Your task to perform on an android device: Clear all items from cart on target.com. Search for "beats solo 3" on target.com, select the first entry, and add it to the cart. Image 0: 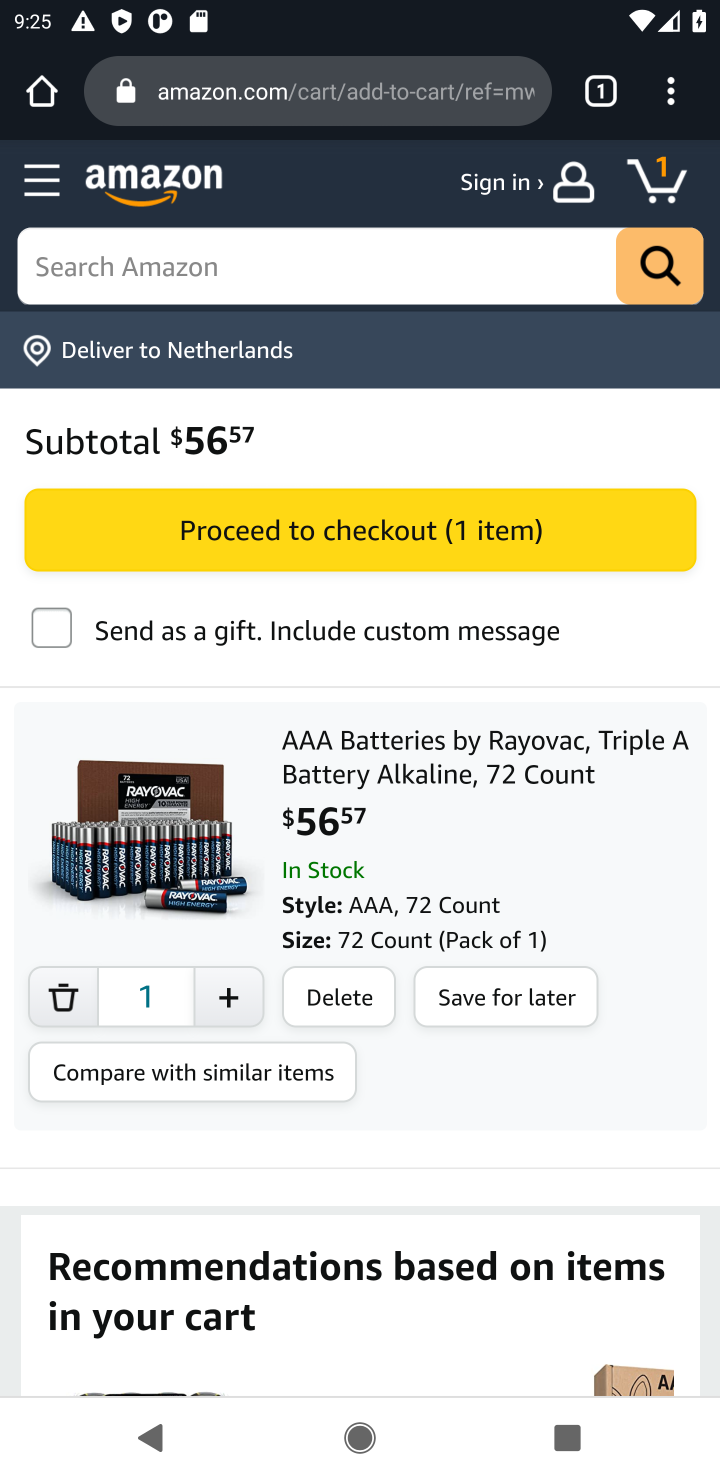
Step 0: click (410, 98)
Your task to perform on an android device: Clear all items from cart on target.com. Search for "beats solo 3" on target.com, select the first entry, and add it to the cart. Image 1: 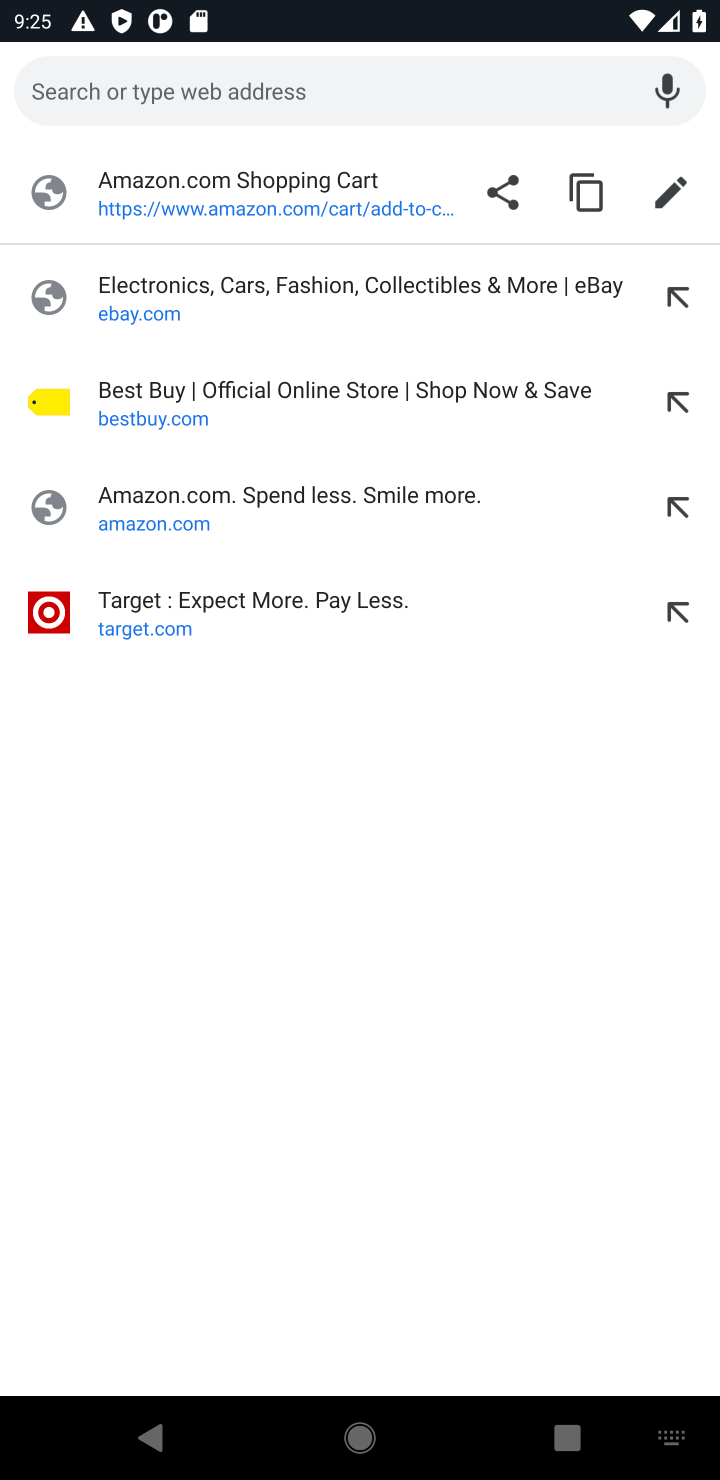
Step 1: type "target.com"
Your task to perform on an android device: Clear all items from cart on target.com. Search for "beats solo 3" on target.com, select the first entry, and add it to the cart. Image 2: 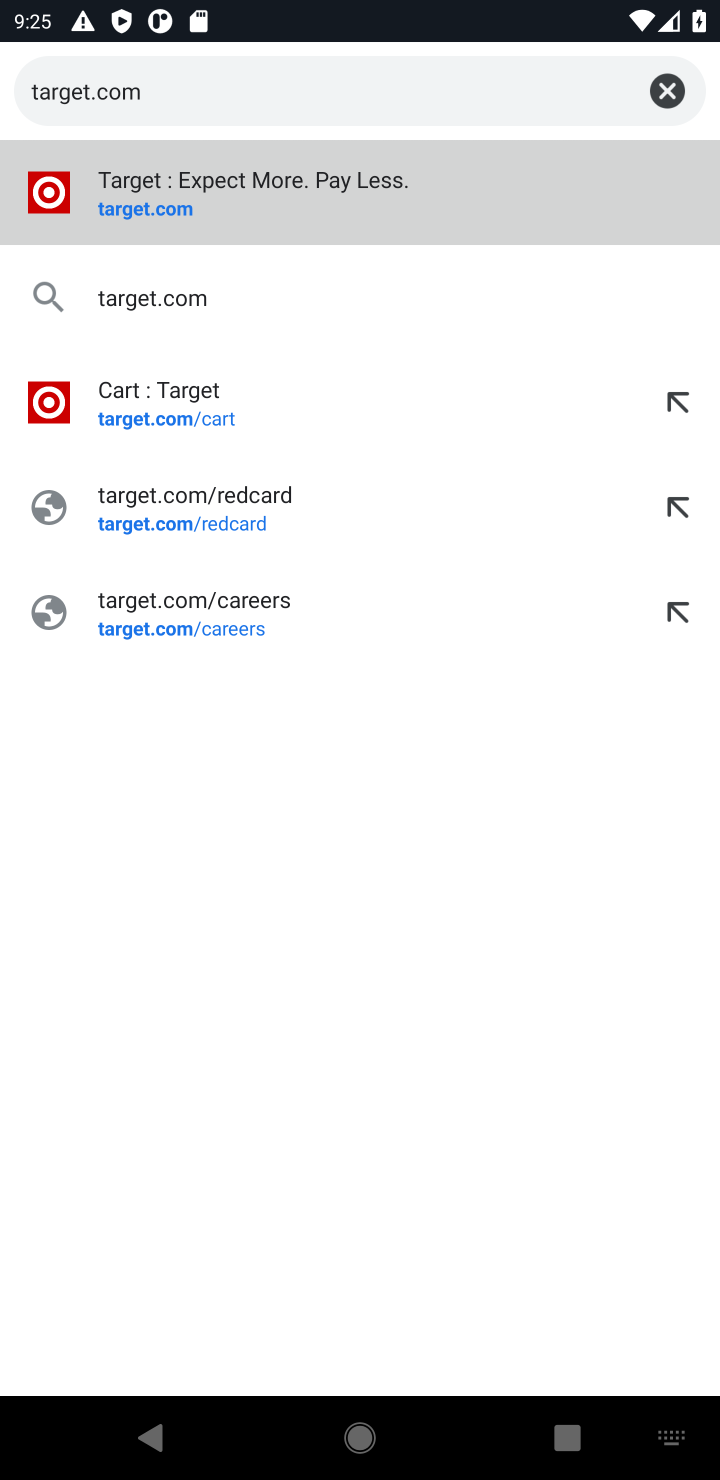
Step 2: press enter
Your task to perform on an android device: Clear all items from cart on target.com. Search for "beats solo 3" on target.com, select the first entry, and add it to the cart. Image 3: 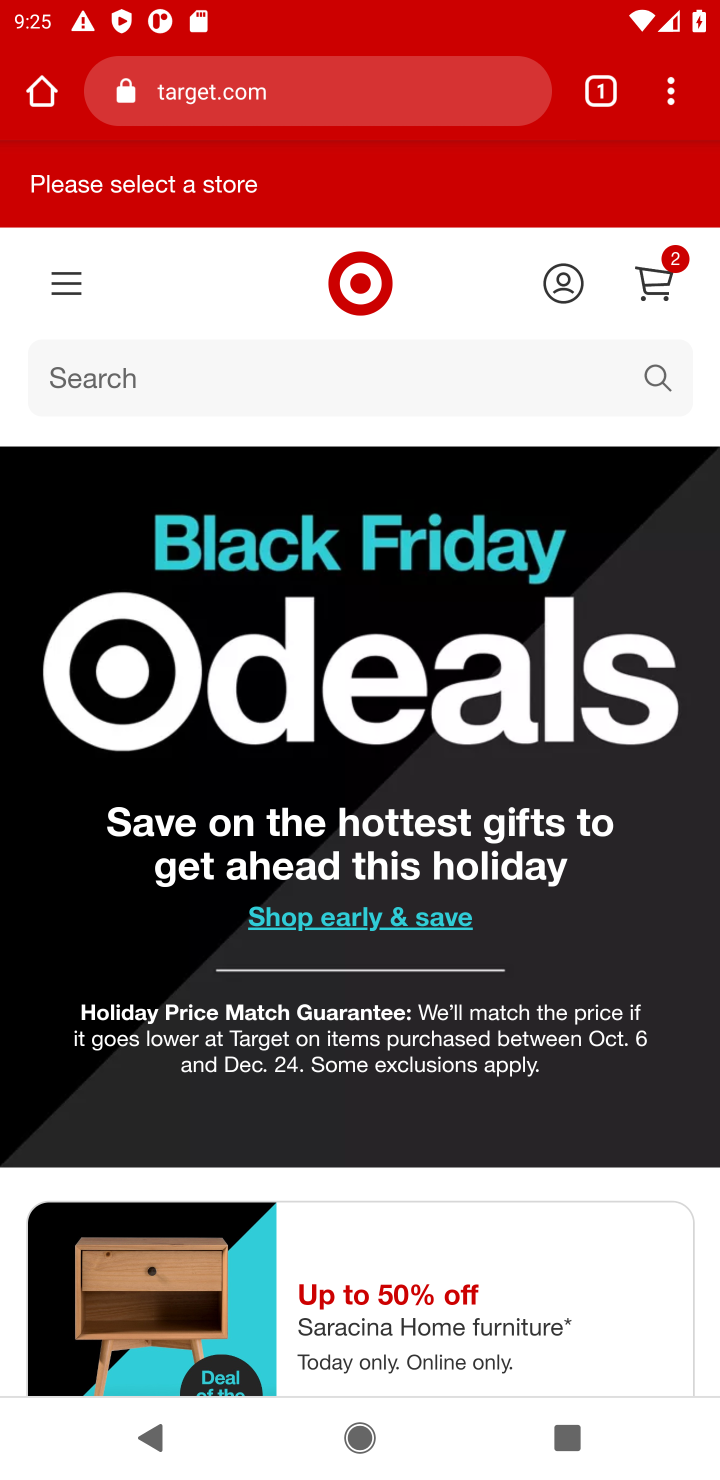
Step 3: drag from (464, 1243) to (494, 414)
Your task to perform on an android device: Clear all items from cart on target.com. Search for "beats solo 3" on target.com, select the first entry, and add it to the cart. Image 4: 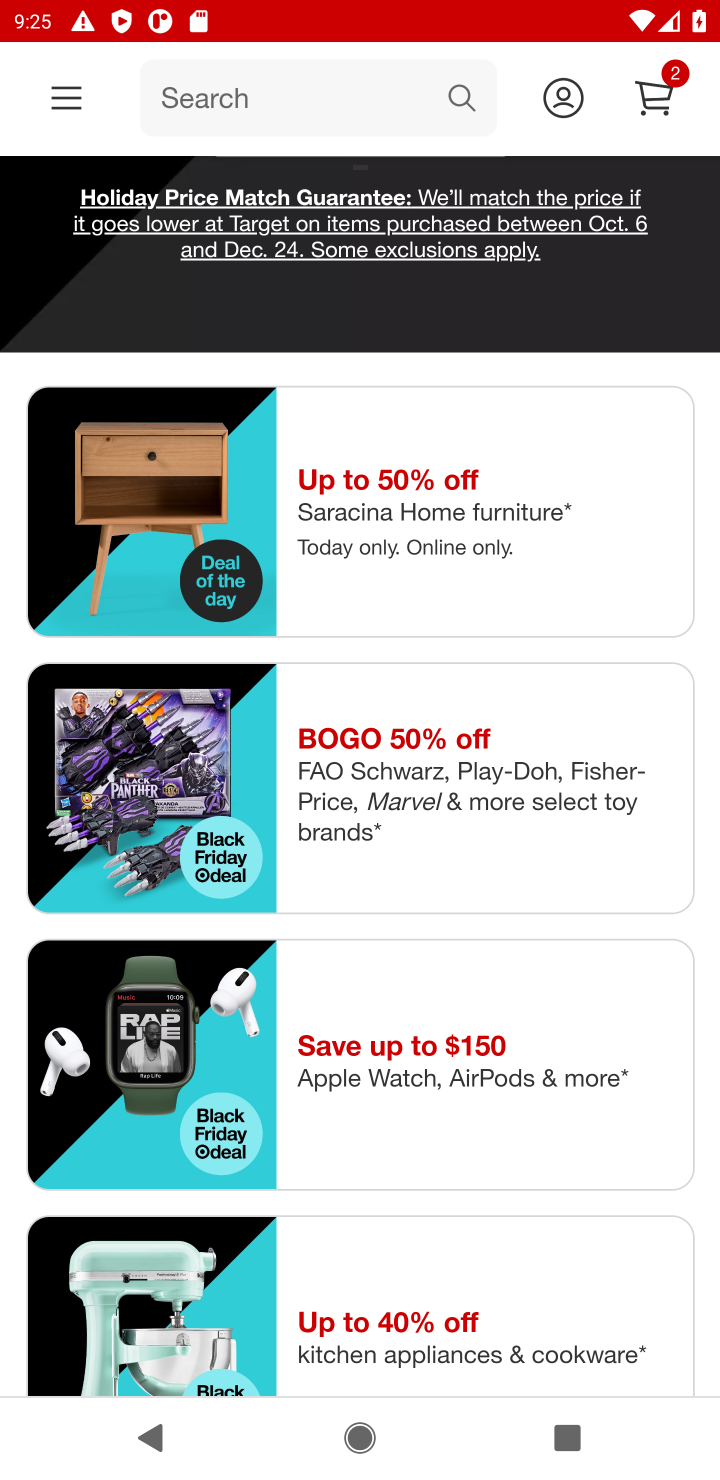
Step 4: click (664, 94)
Your task to perform on an android device: Clear all items from cart on target.com. Search for "beats solo 3" on target.com, select the first entry, and add it to the cart. Image 5: 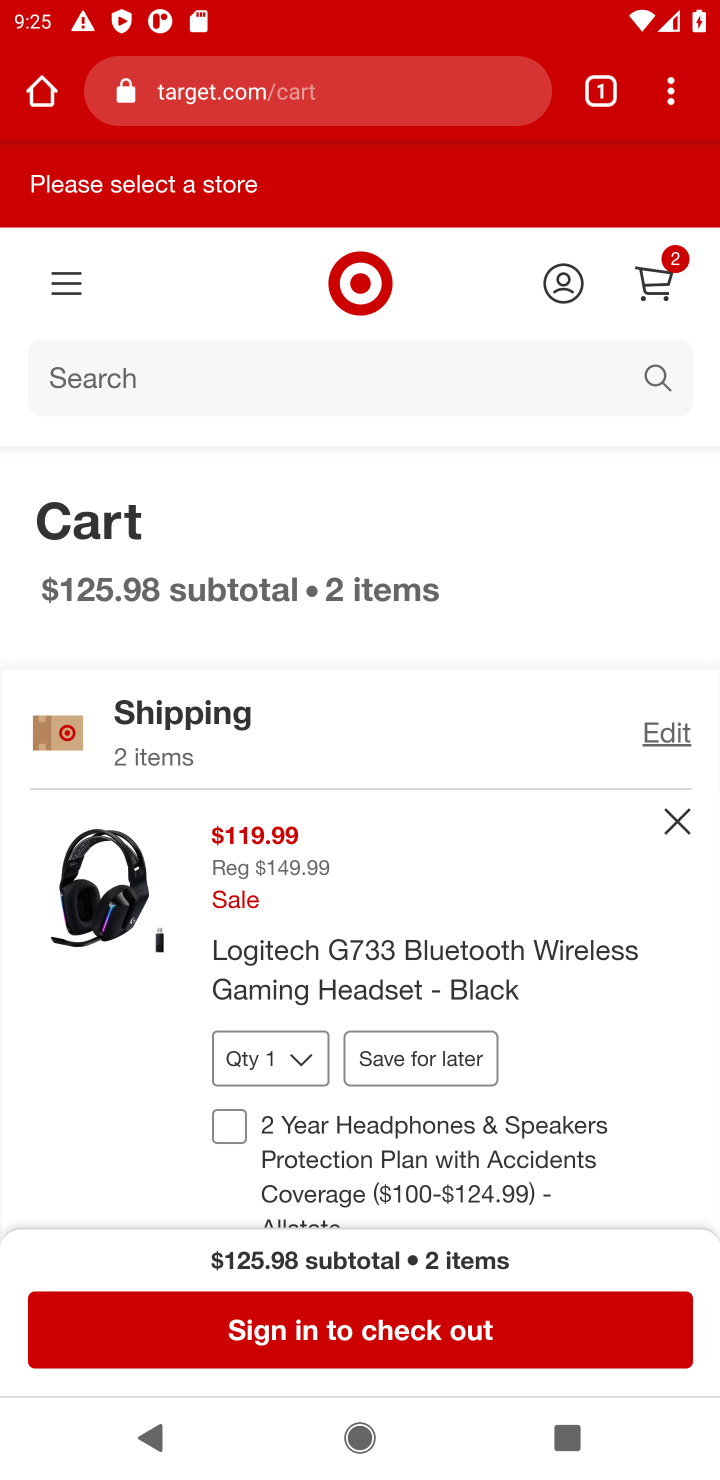
Step 5: drag from (469, 893) to (441, 440)
Your task to perform on an android device: Clear all items from cart on target.com. Search for "beats solo 3" on target.com, select the first entry, and add it to the cart. Image 6: 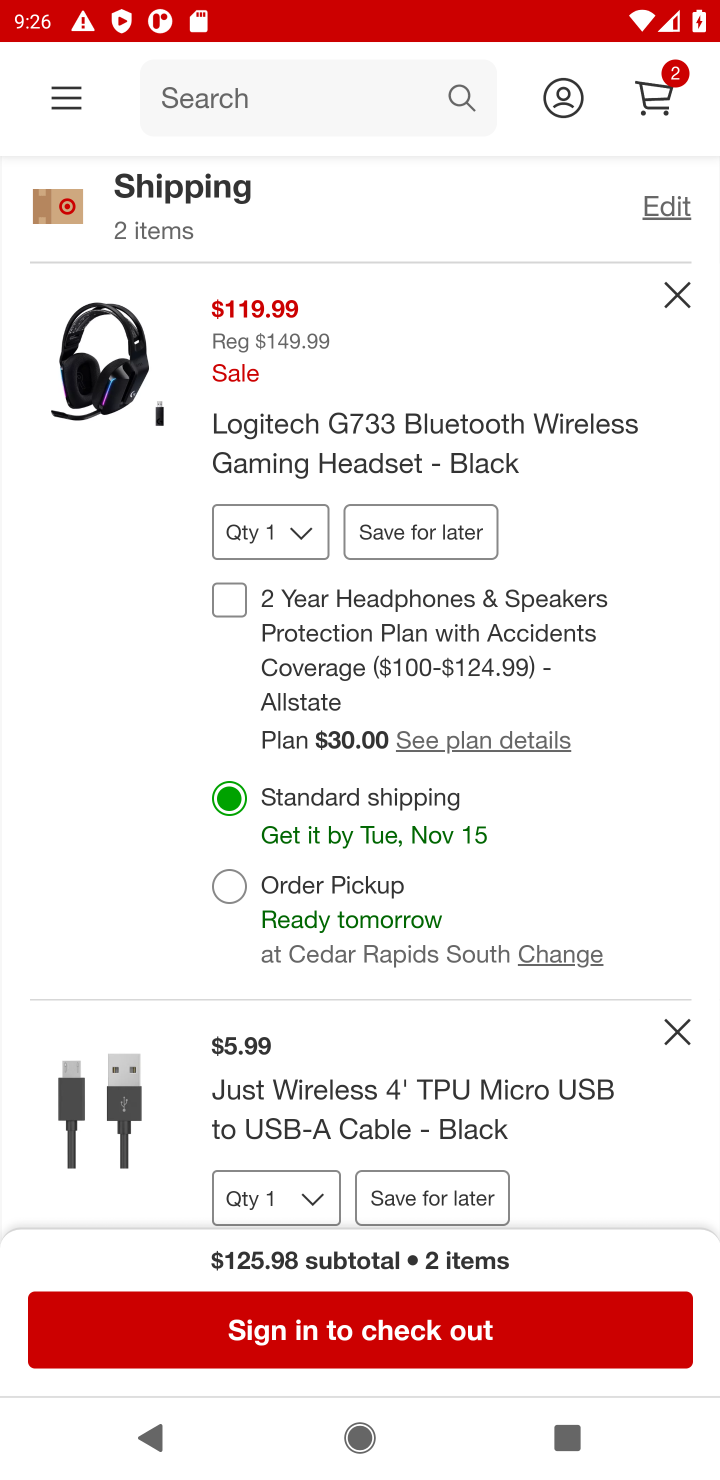
Step 6: drag from (433, 405) to (489, 1014)
Your task to perform on an android device: Clear all items from cart on target.com. Search for "beats solo 3" on target.com, select the first entry, and add it to the cart. Image 7: 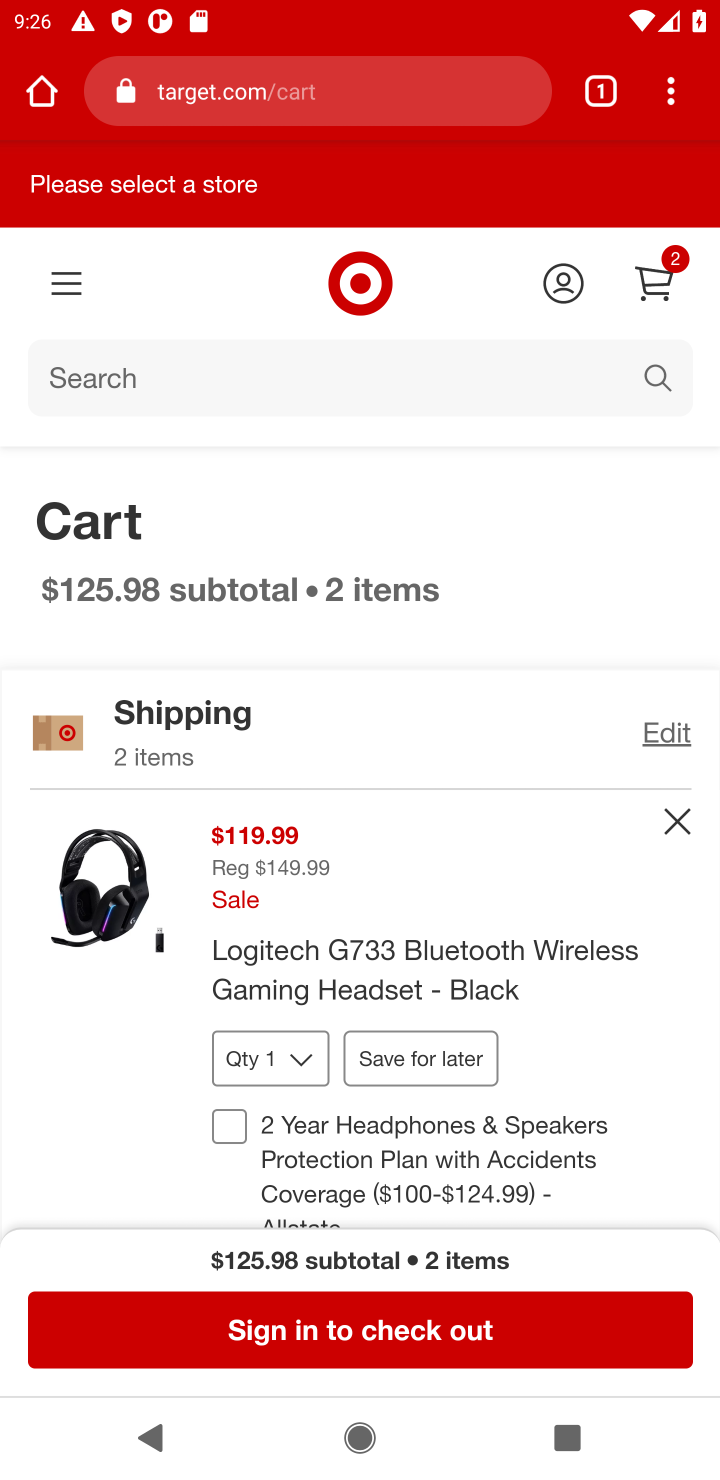
Step 7: click (679, 825)
Your task to perform on an android device: Clear all items from cart on target.com. Search for "beats solo 3" on target.com, select the first entry, and add it to the cart. Image 8: 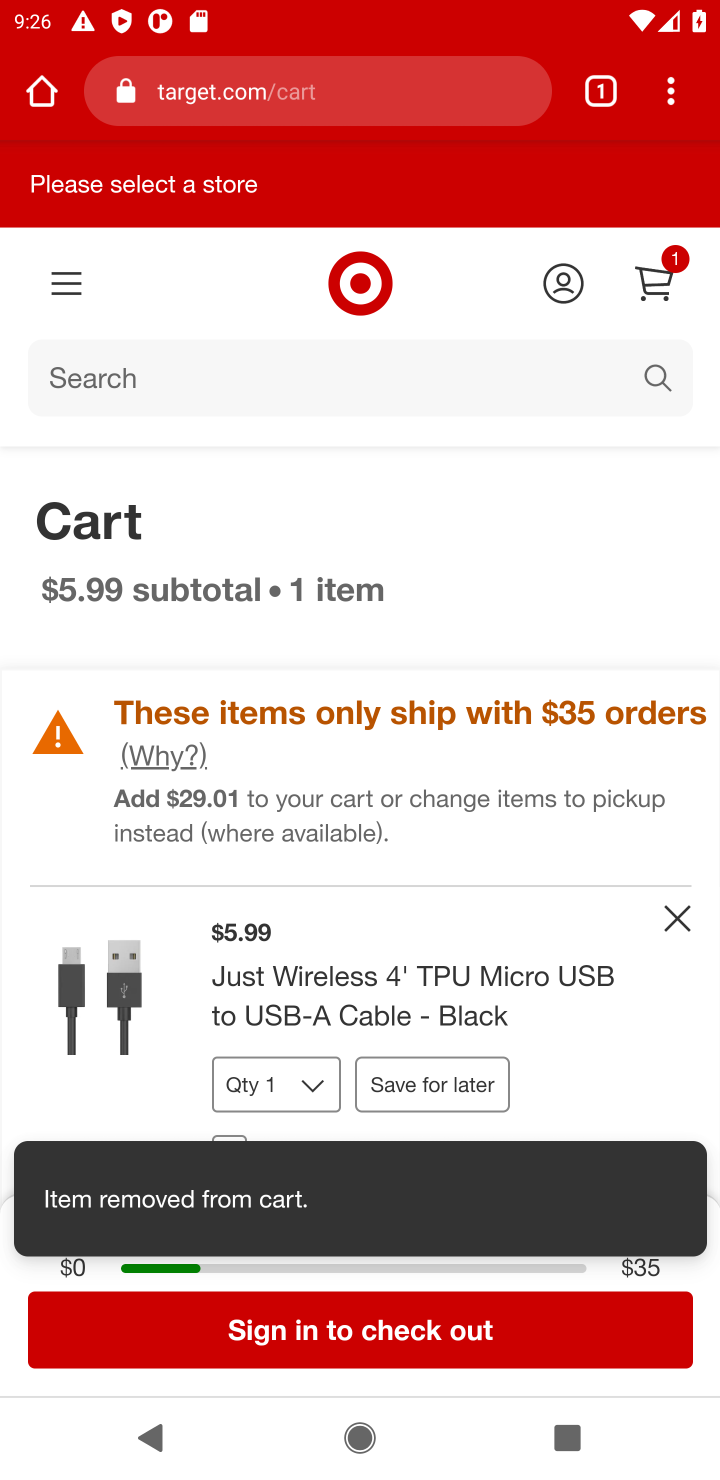
Step 8: click (663, 872)
Your task to perform on an android device: Clear all items from cart on target.com. Search for "beats solo 3" on target.com, select the first entry, and add it to the cart. Image 9: 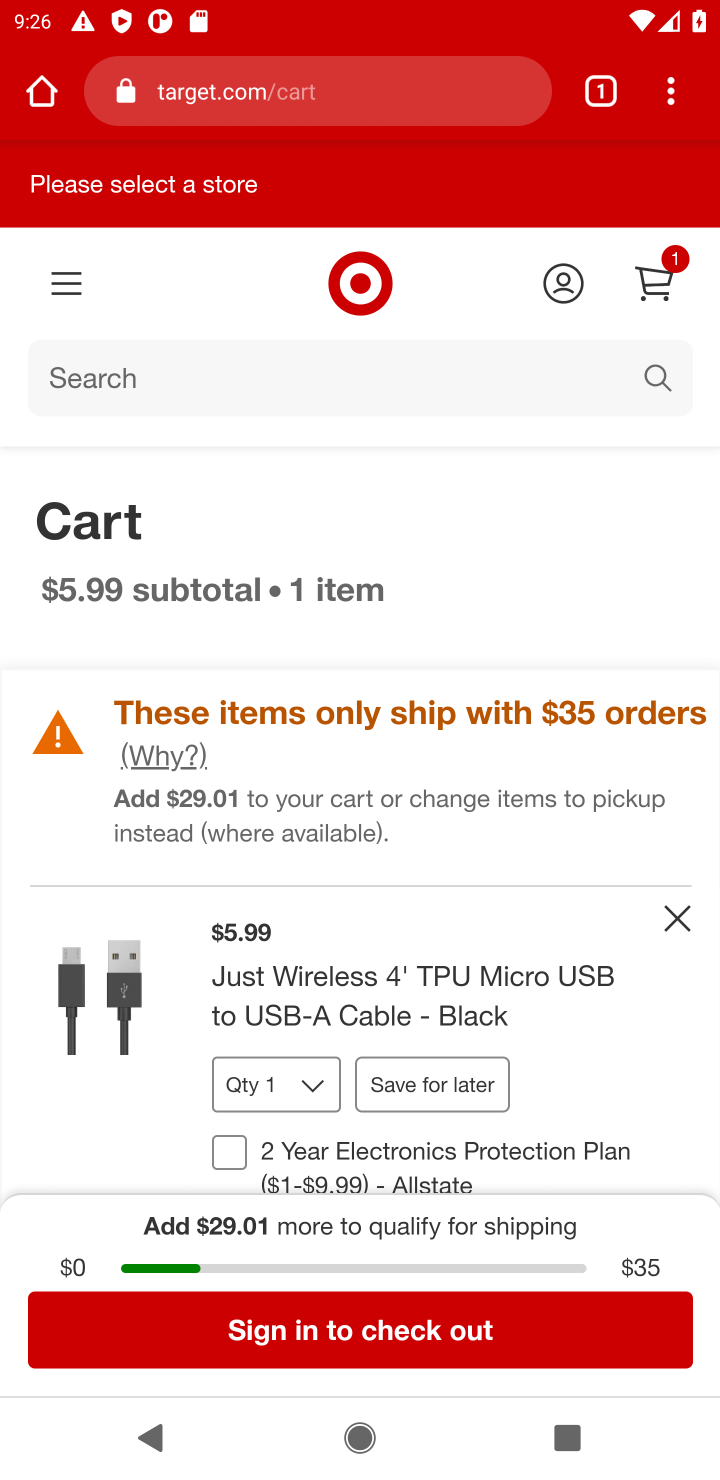
Step 9: click (665, 910)
Your task to perform on an android device: Clear all items from cart on target.com. Search for "beats solo 3" on target.com, select the first entry, and add it to the cart. Image 10: 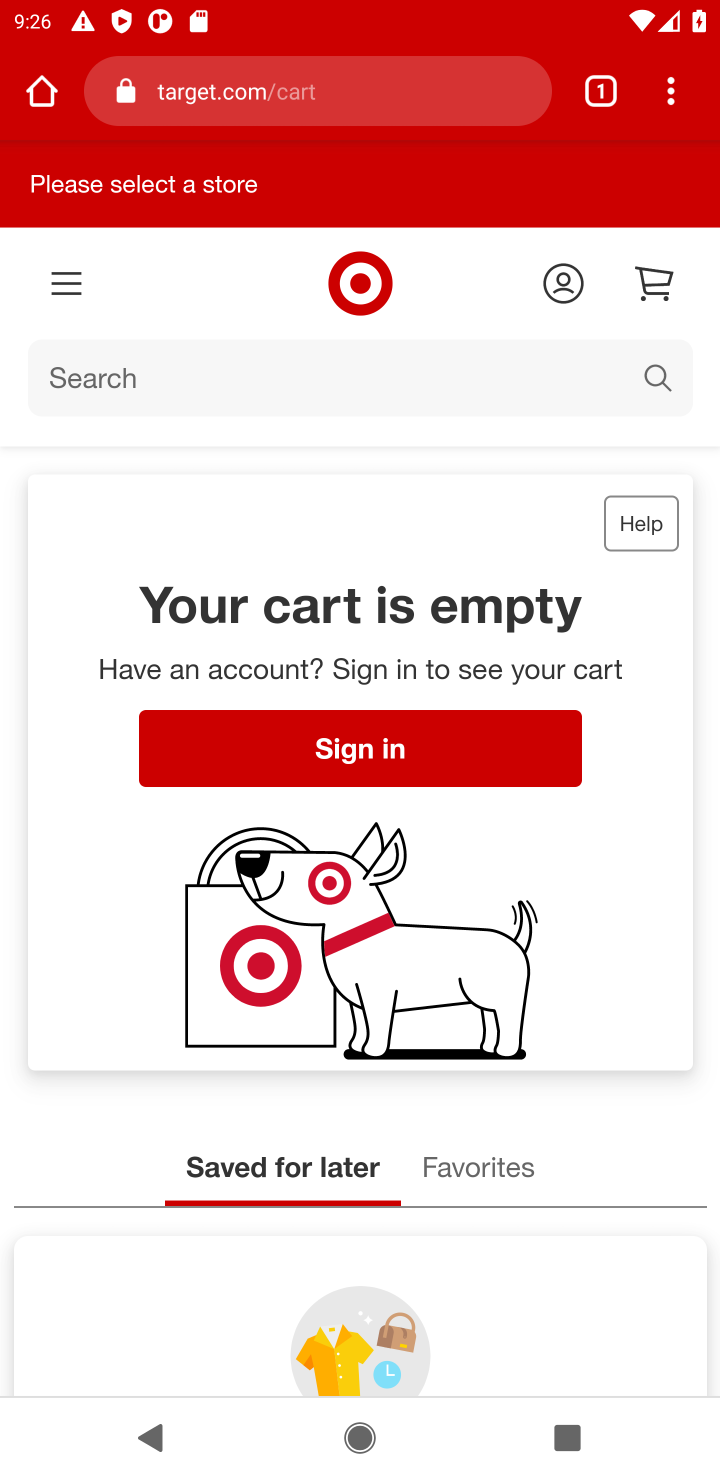
Step 10: click (517, 379)
Your task to perform on an android device: Clear all items from cart on target.com. Search for "beats solo 3" on target.com, select the first entry, and add it to the cart. Image 11: 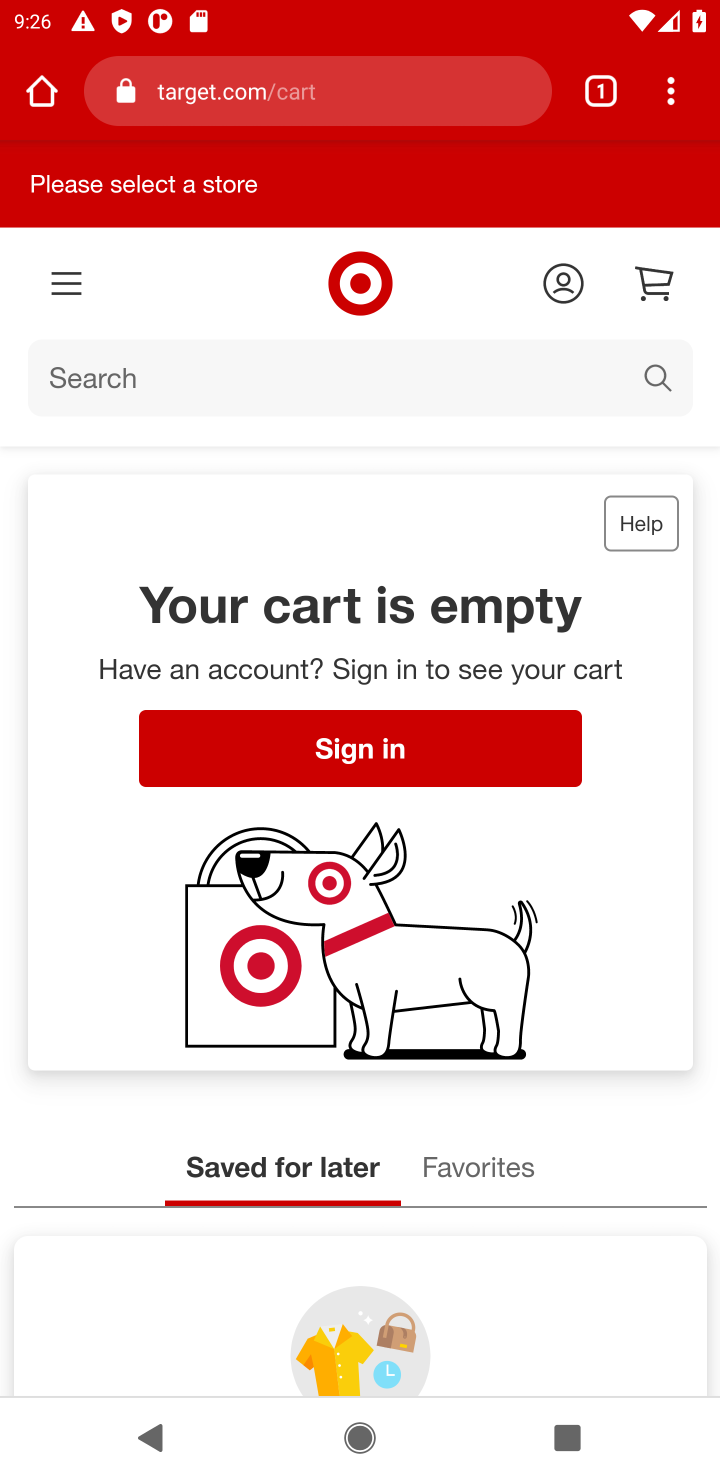
Step 11: click (454, 514)
Your task to perform on an android device: Clear all items from cart on target.com. Search for "beats solo 3" on target.com, select the first entry, and add it to the cart. Image 12: 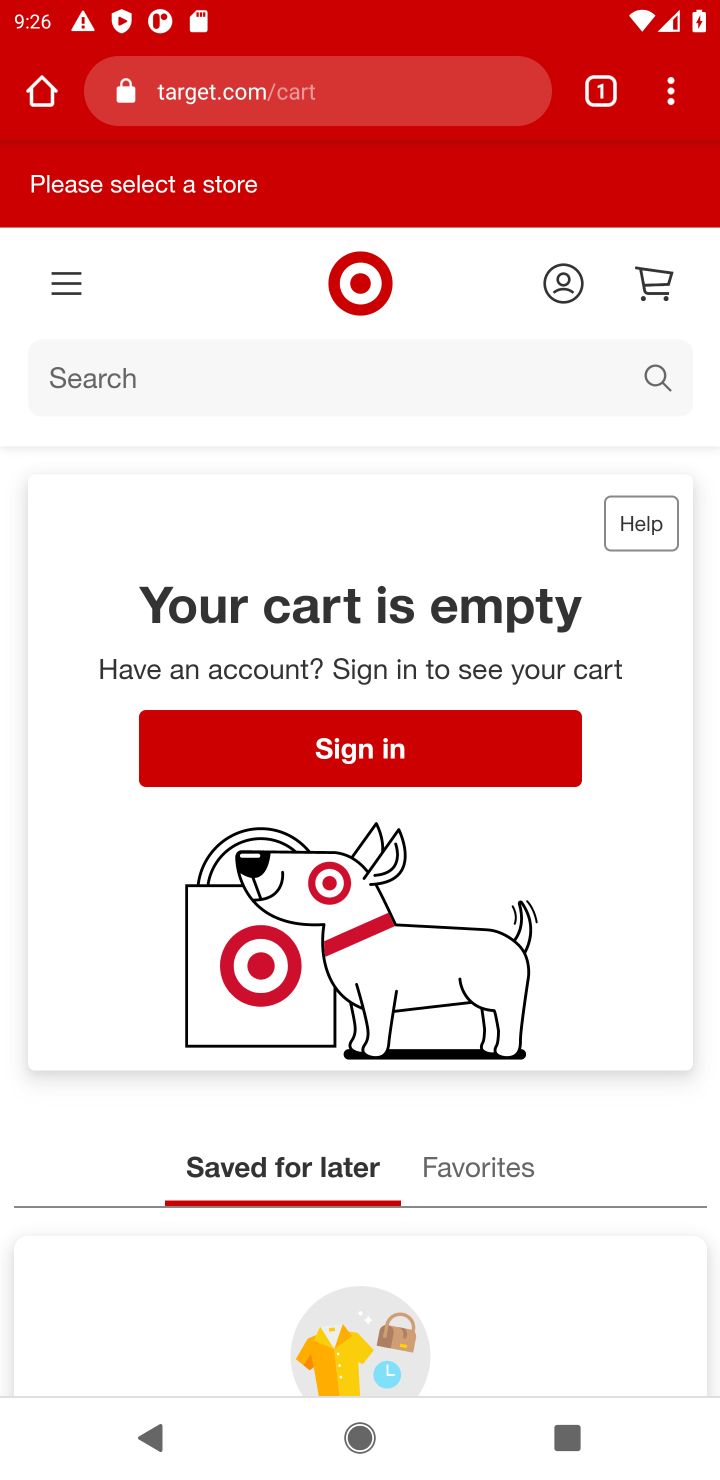
Step 12: click (274, 487)
Your task to perform on an android device: Clear all items from cart on target.com. Search for "beats solo 3" on target.com, select the first entry, and add it to the cart. Image 13: 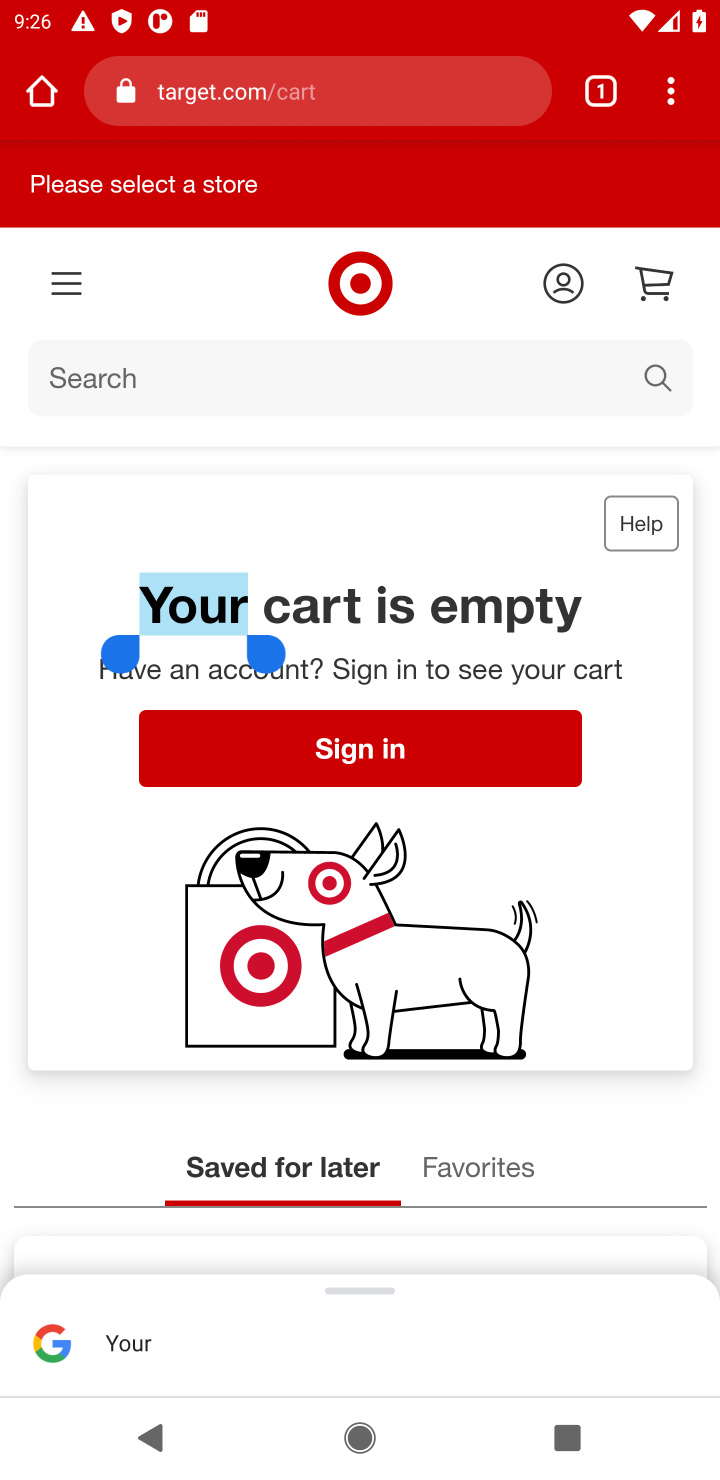
Step 13: click (447, 382)
Your task to perform on an android device: Clear all items from cart on target.com. Search for "beats solo 3" on target.com, select the first entry, and add it to the cart. Image 14: 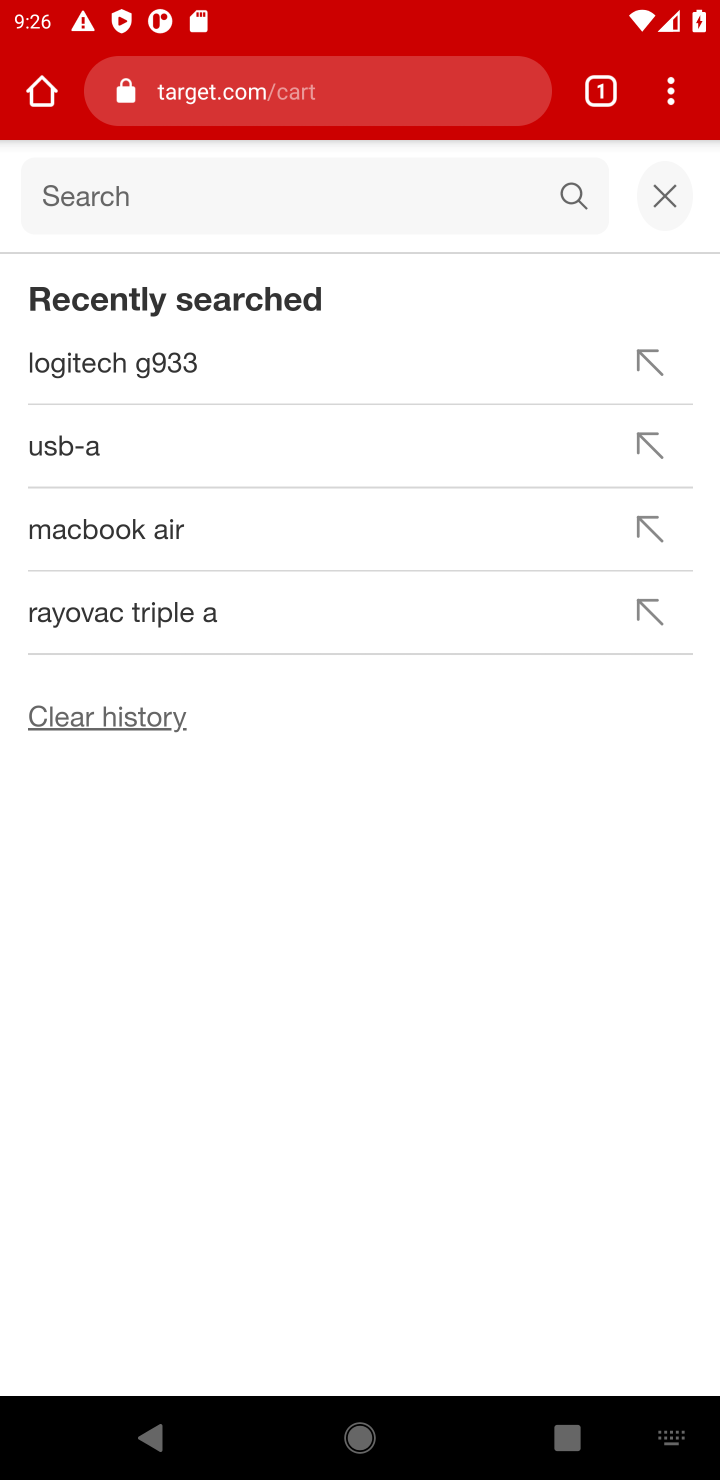
Step 14: type "beats solo 3"
Your task to perform on an android device: Clear all items from cart on target.com. Search for "beats solo 3" on target.com, select the first entry, and add it to the cart. Image 15: 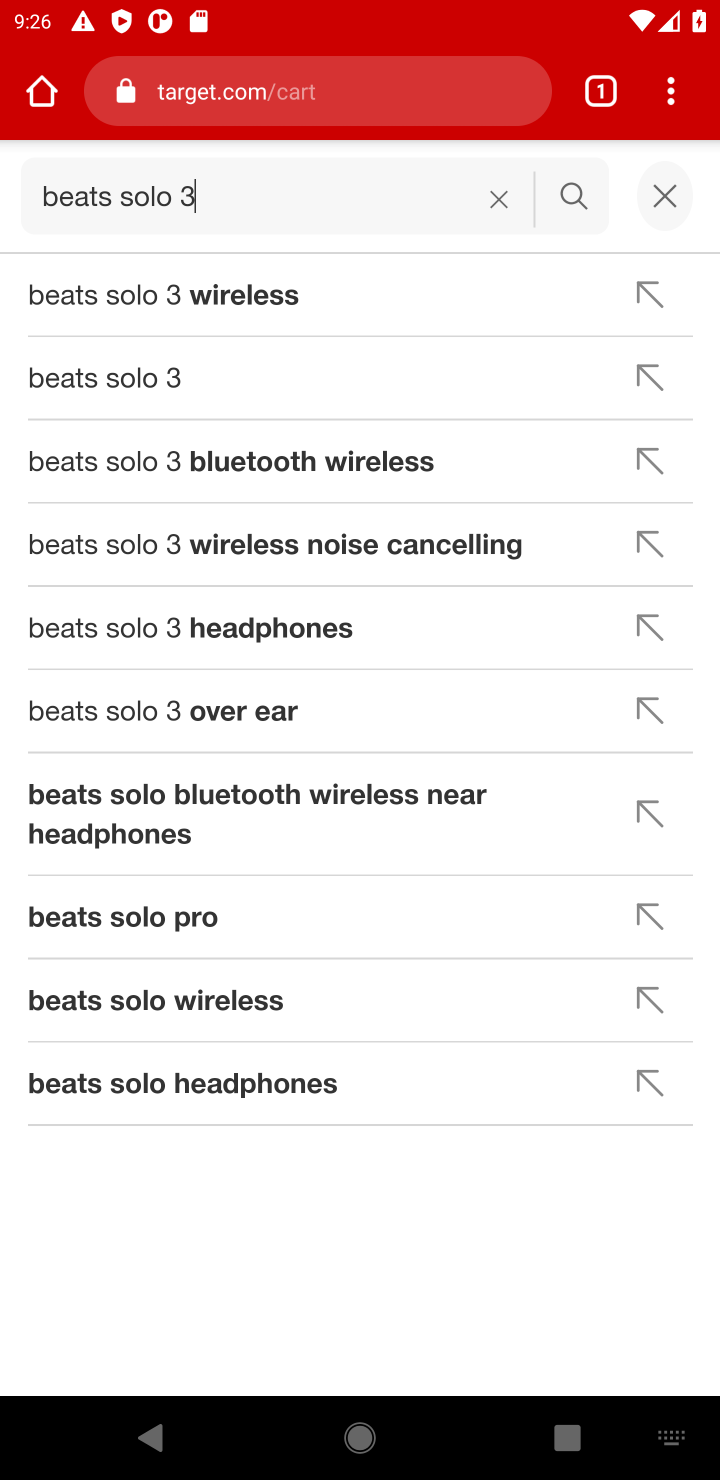
Step 15: press enter
Your task to perform on an android device: Clear all items from cart on target.com. Search for "beats solo 3" on target.com, select the first entry, and add it to the cart. Image 16: 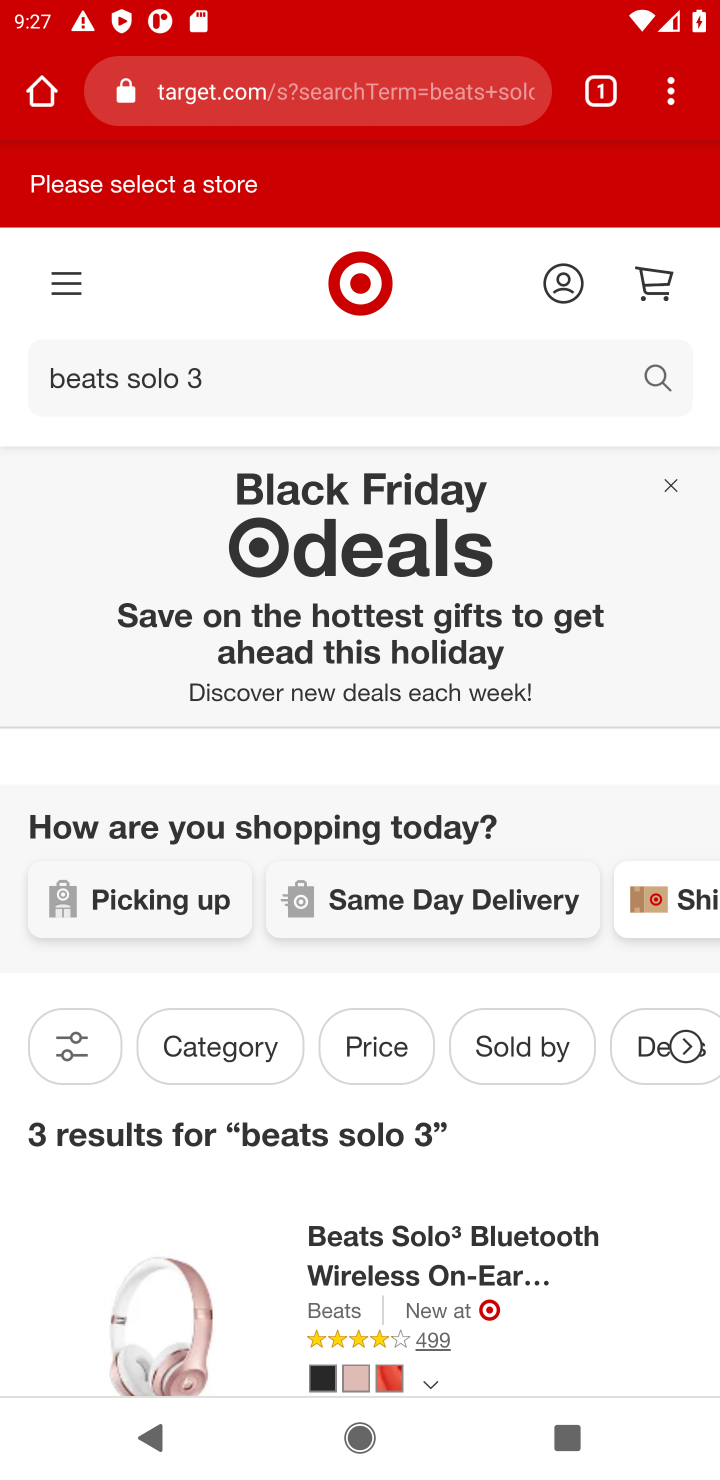
Step 16: task complete